Your task to perform on an android device: refresh tabs in the chrome app Image 0: 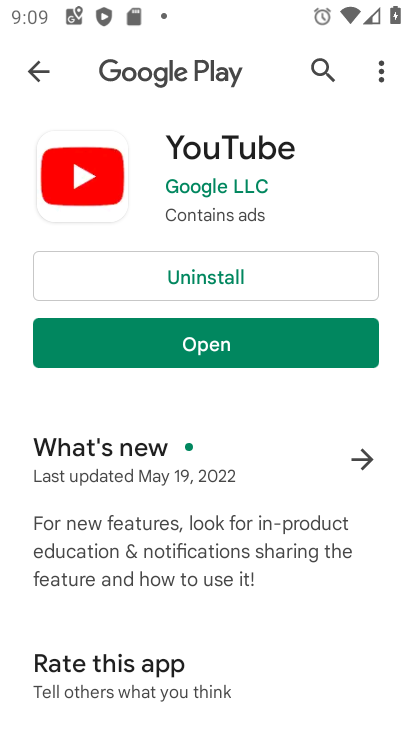
Step 0: press home button
Your task to perform on an android device: refresh tabs in the chrome app Image 1: 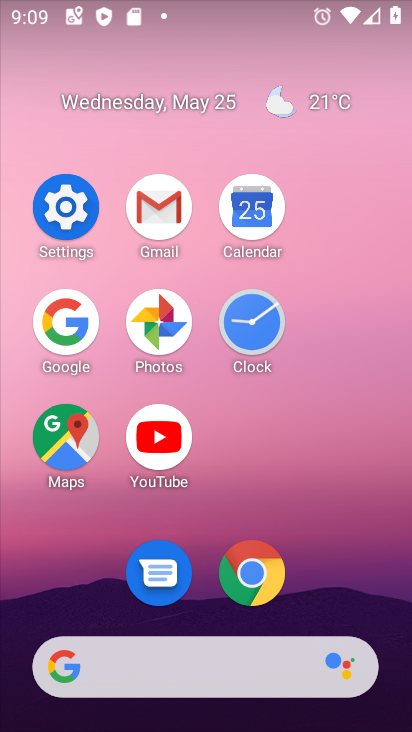
Step 1: click (251, 588)
Your task to perform on an android device: refresh tabs in the chrome app Image 2: 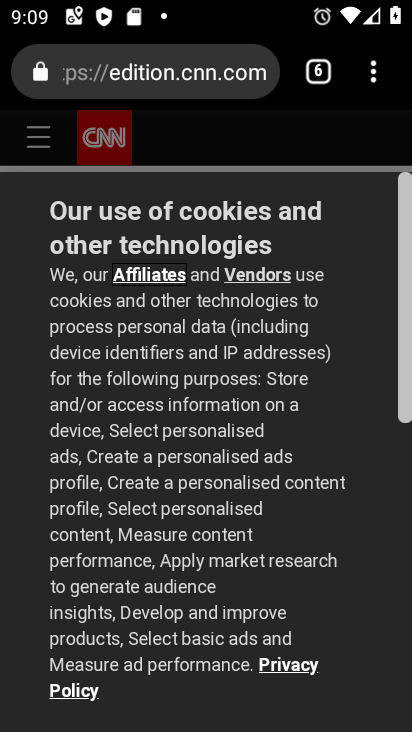
Step 2: click (372, 67)
Your task to perform on an android device: refresh tabs in the chrome app Image 3: 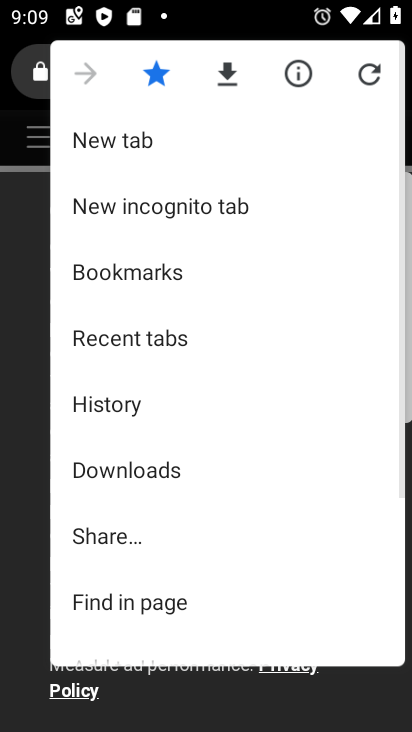
Step 3: click (379, 73)
Your task to perform on an android device: refresh tabs in the chrome app Image 4: 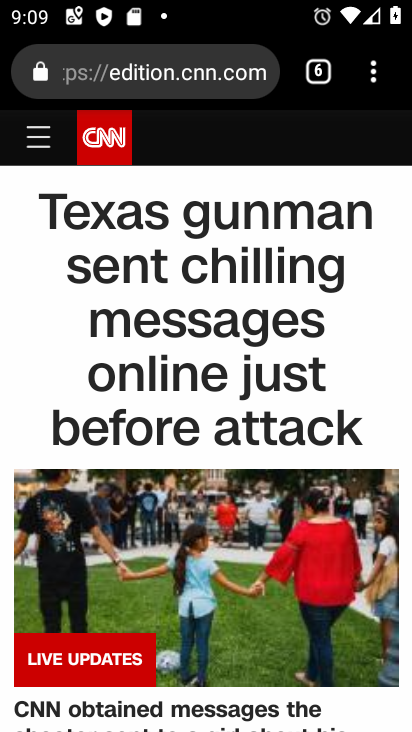
Step 4: task complete